Your task to perform on an android device: When is my next meeting? Image 0: 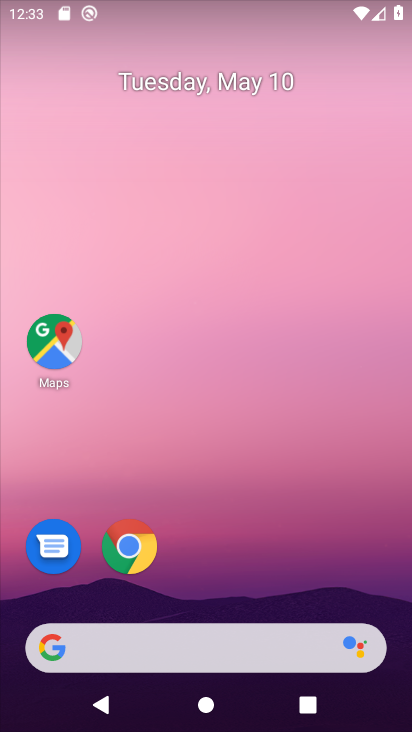
Step 0: drag from (317, 578) to (257, 36)
Your task to perform on an android device: When is my next meeting? Image 1: 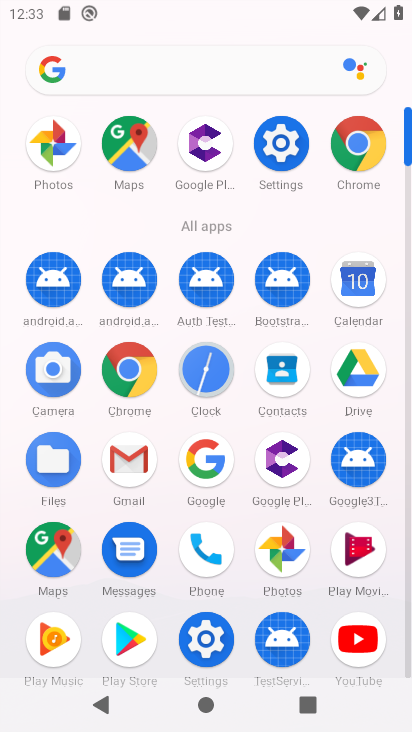
Step 1: click (361, 289)
Your task to perform on an android device: When is my next meeting? Image 2: 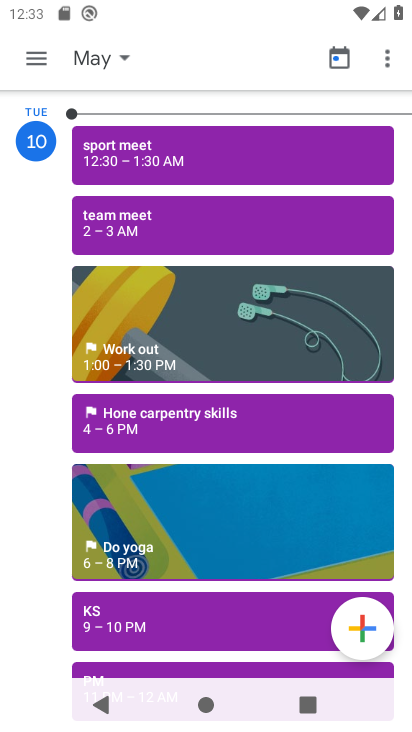
Step 2: click (124, 62)
Your task to perform on an android device: When is my next meeting? Image 3: 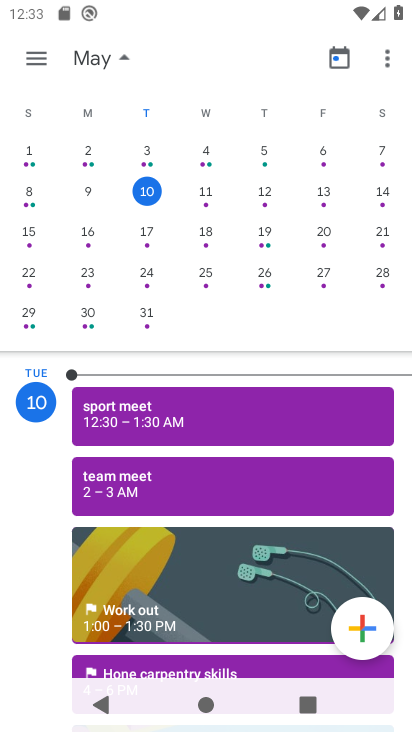
Step 3: click (95, 69)
Your task to perform on an android device: When is my next meeting? Image 4: 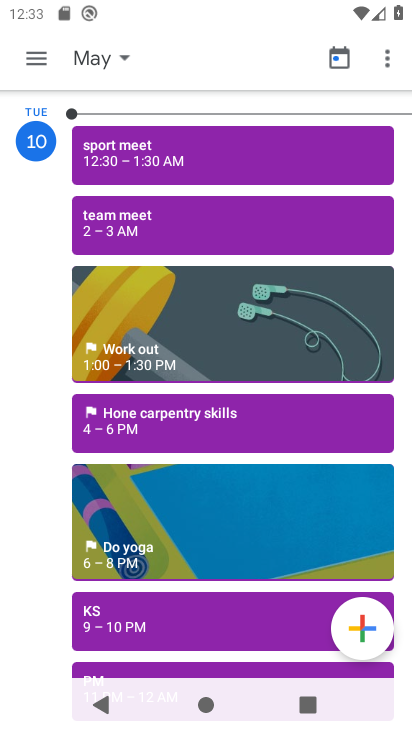
Step 4: task complete